Your task to perform on an android device: clear all cookies in the chrome app Image 0: 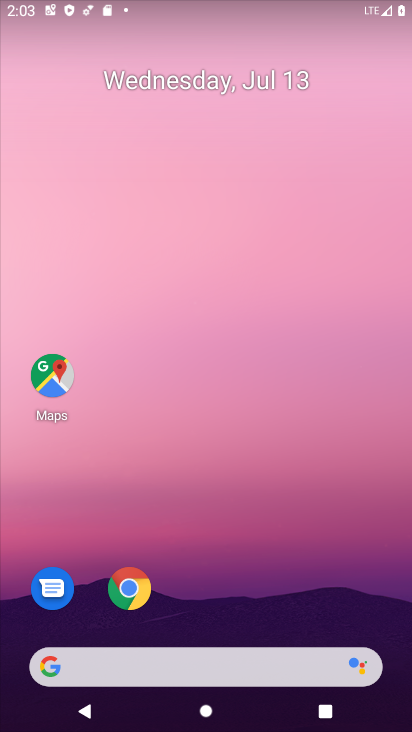
Step 0: click (321, 183)
Your task to perform on an android device: clear all cookies in the chrome app Image 1: 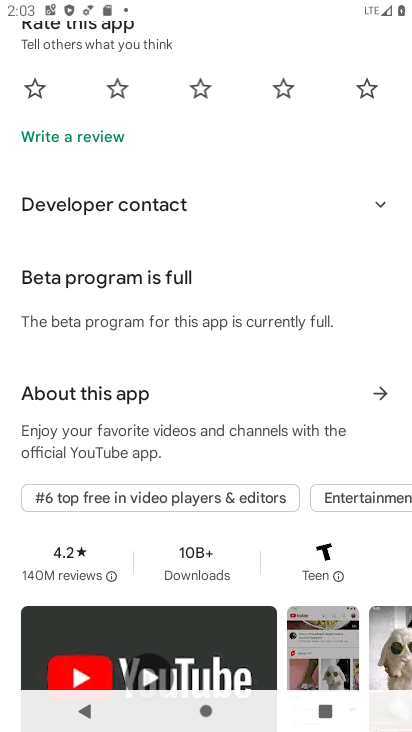
Step 1: press home button
Your task to perform on an android device: clear all cookies in the chrome app Image 2: 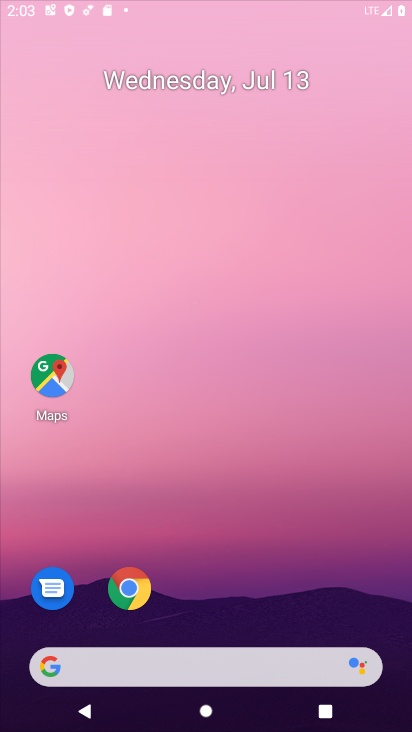
Step 2: drag from (190, 594) to (265, 225)
Your task to perform on an android device: clear all cookies in the chrome app Image 3: 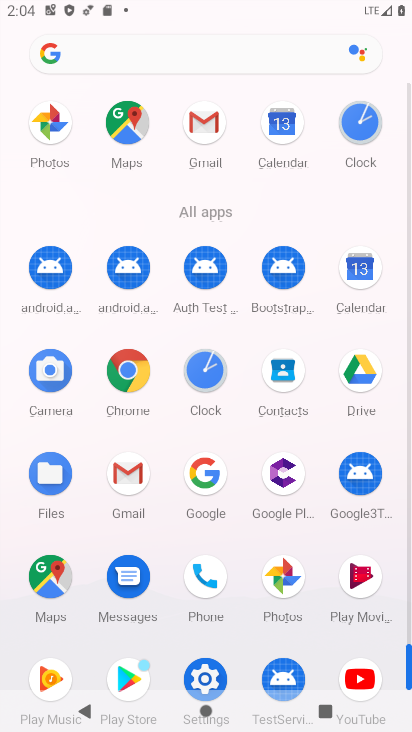
Step 3: click (124, 375)
Your task to perform on an android device: clear all cookies in the chrome app Image 4: 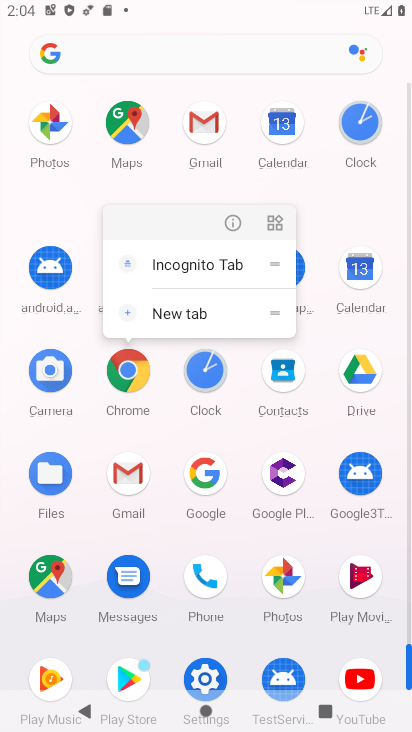
Step 4: click (223, 228)
Your task to perform on an android device: clear all cookies in the chrome app Image 5: 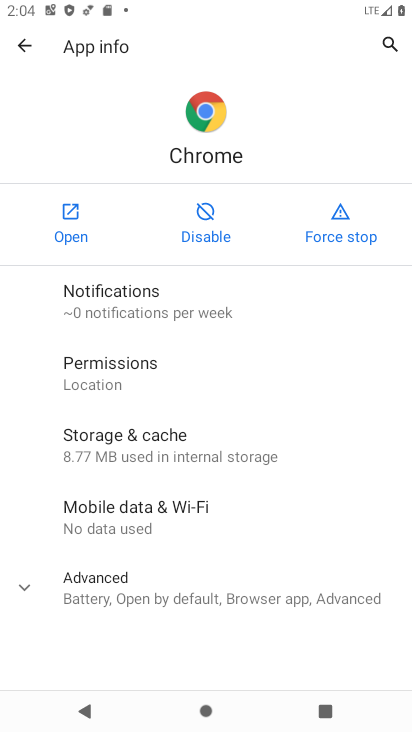
Step 5: click (83, 220)
Your task to perform on an android device: clear all cookies in the chrome app Image 6: 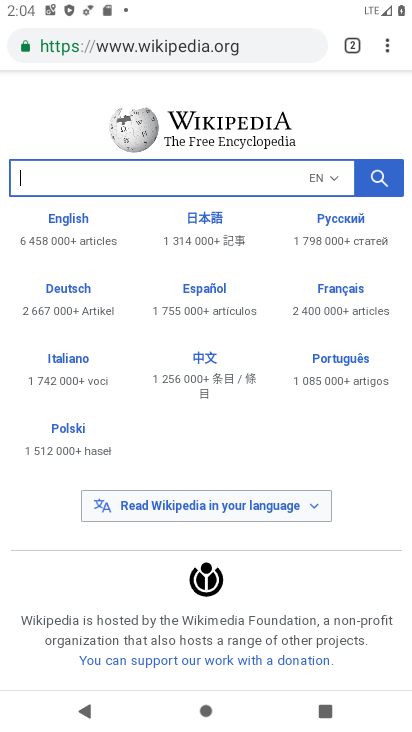
Step 6: drag from (305, 124) to (258, 471)
Your task to perform on an android device: clear all cookies in the chrome app Image 7: 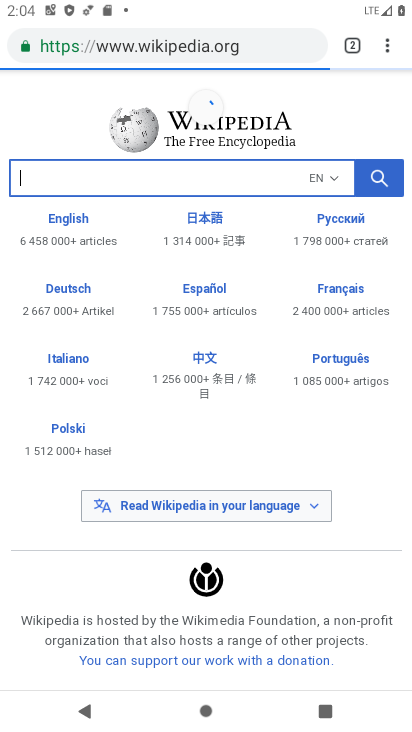
Step 7: click (388, 41)
Your task to perform on an android device: clear all cookies in the chrome app Image 8: 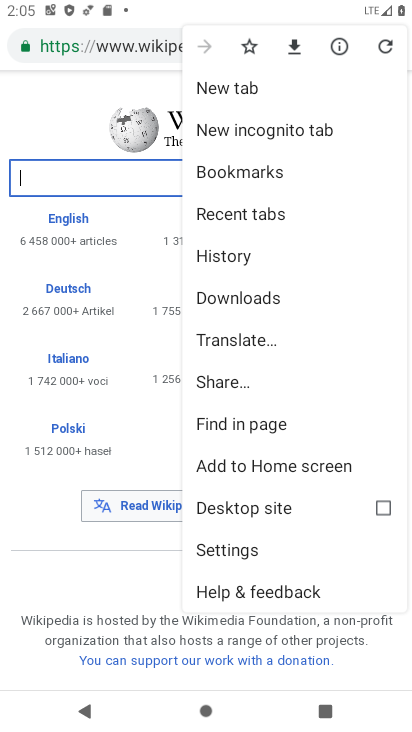
Step 8: click (230, 243)
Your task to perform on an android device: clear all cookies in the chrome app Image 9: 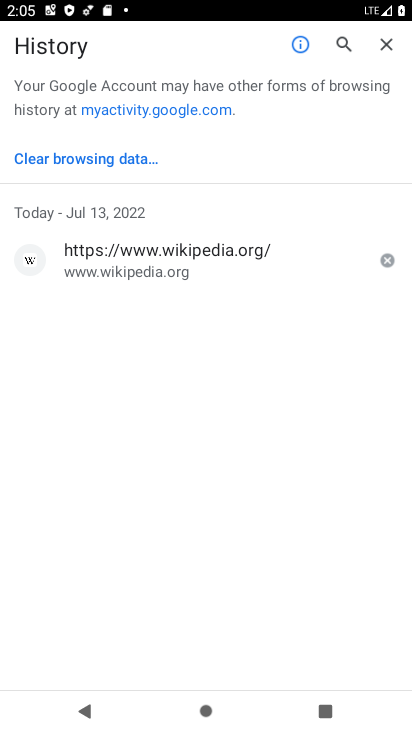
Step 9: click (98, 153)
Your task to perform on an android device: clear all cookies in the chrome app Image 10: 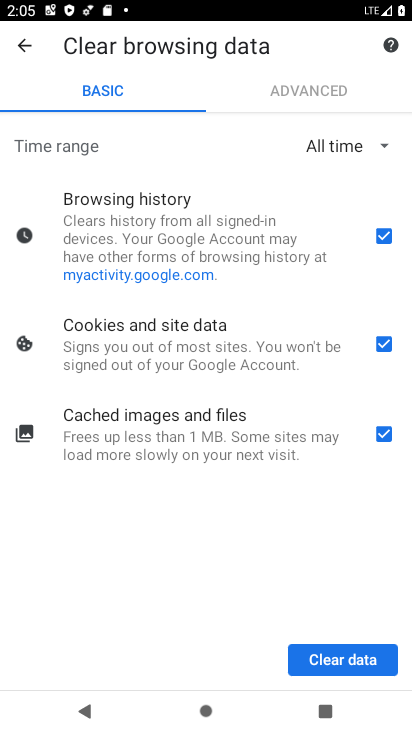
Step 10: drag from (205, 539) to (243, 287)
Your task to perform on an android device: clear all cookies in the chrome app Image 11: 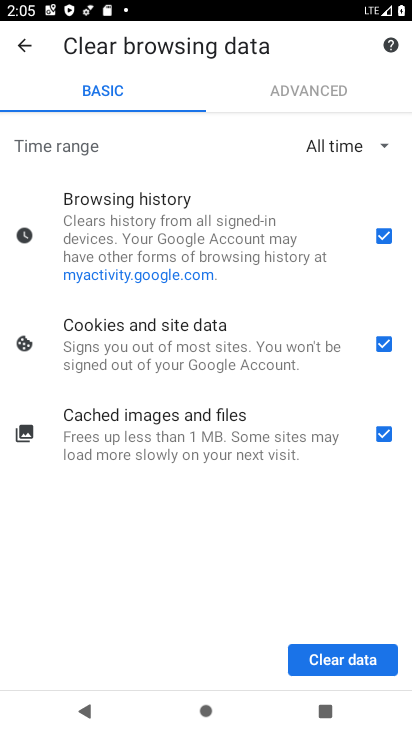
Step 11: drag from (269, 289) to (242, 665)
Your task to perform on an android device: clear all cookies in the chrome app Image 12: 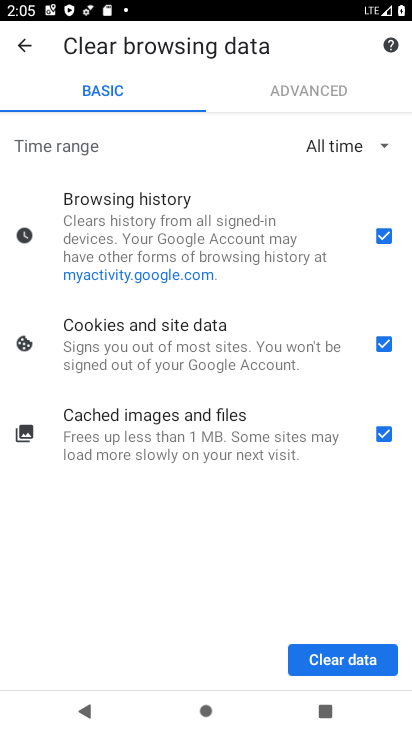
Step 12: click (340, 666)
Your task to perform on an android device: clear all cookies in the chrome app Image 13: 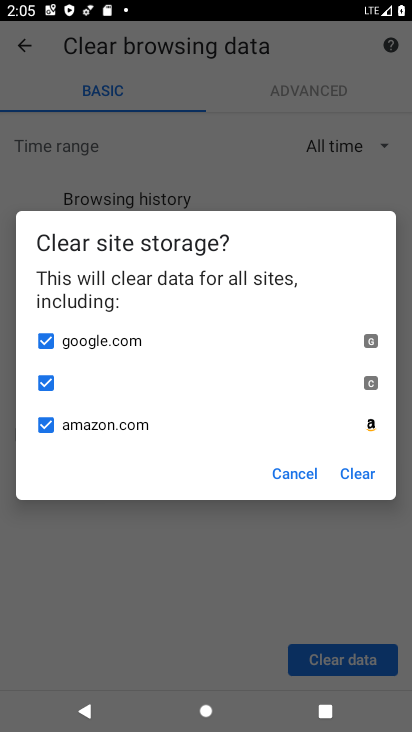
Step 13: click (361, 477)
Your task to perform on an android device: clear all cookies in the chrome app Image 14: 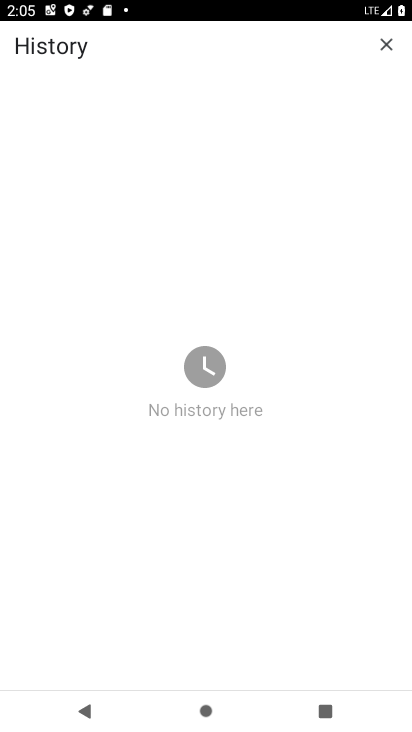
Step 14: task complete